Your task to perform on an android device: toggle priority inbox in the gmail app Image 0: 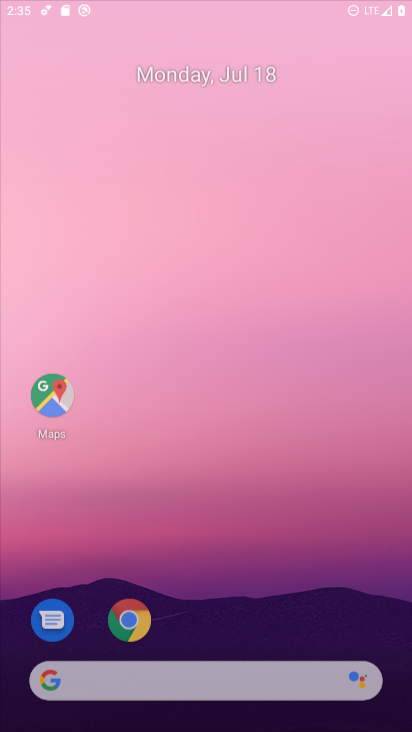
Step 0: press home button
Your task to perform on an android device: toggle priority inbox in the gmail app Image 1: 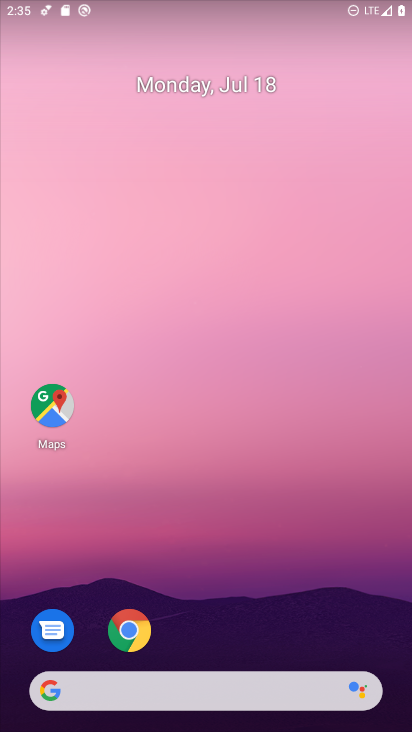
Step 1: drag from (204, 636) to (88, 3)
Your task to perform on an android device: toggle priority inbox in the gmail app Image 2: 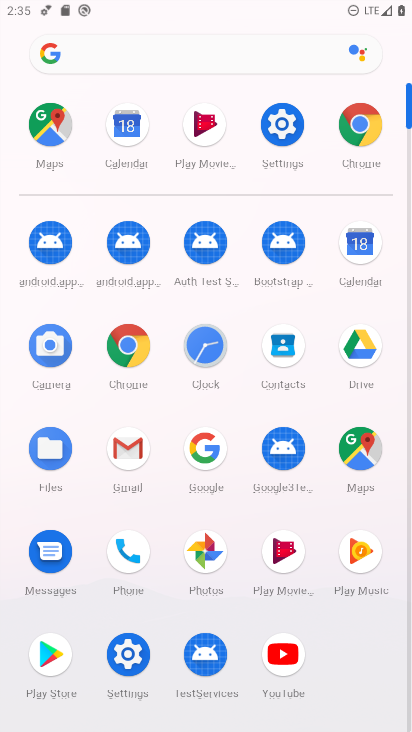
Step 2: click (129, 449)
Your task to perform on an android device: toggle priority inbox in the gmail app Image 3: 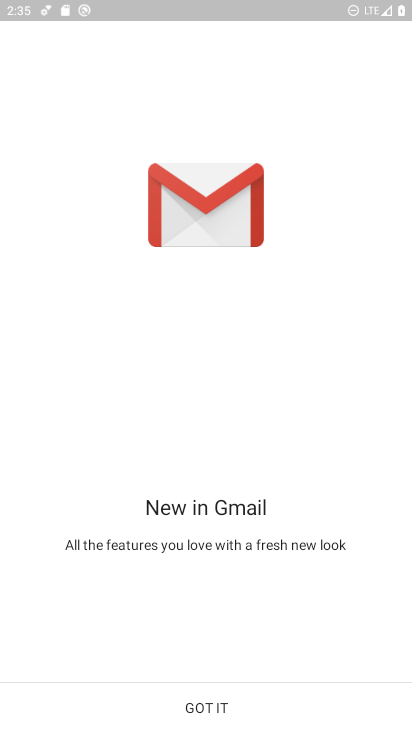
Step 3: click (222, 701)
Your task to perform on an android device: toggle priority inbox in the gmail app Image 4: 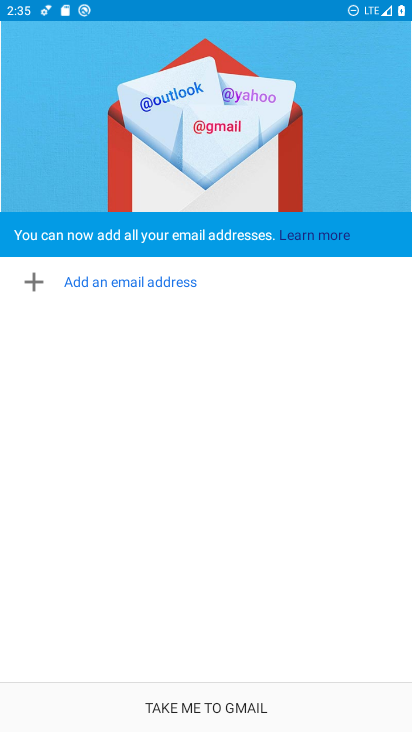
Step 4: click (229, 697)
Your task to perform on an android device: toggle priority inbox in the gmail app Image 5: 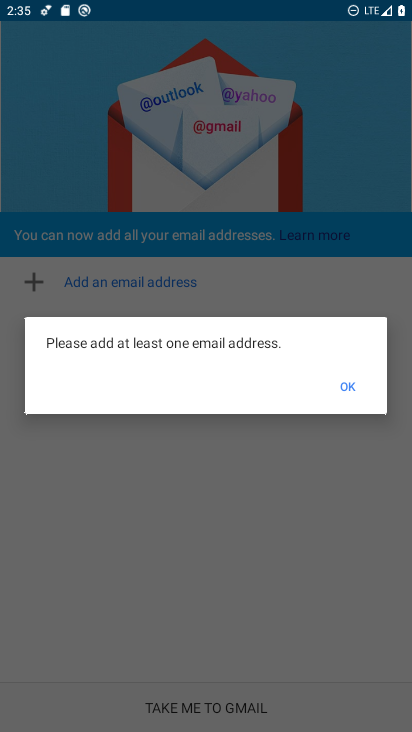
Step 5: click (364, 390)
Your task to perform on an android device: toggle priority inbox in the gmail app Image 6: 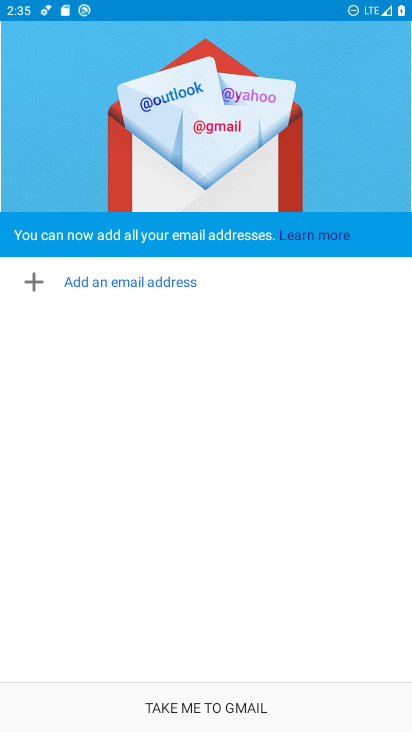
Step 6: click (191, 709)
Your task to perform on an android device: toggle priority inbox in the gmail app Image 7: 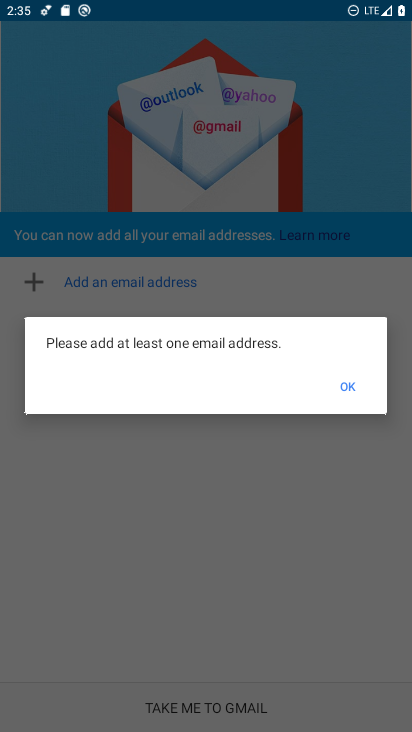
Step 7: click (352, 388)
Your task to perform on an android device: toggle priority inbox in the gmail app Image 8: 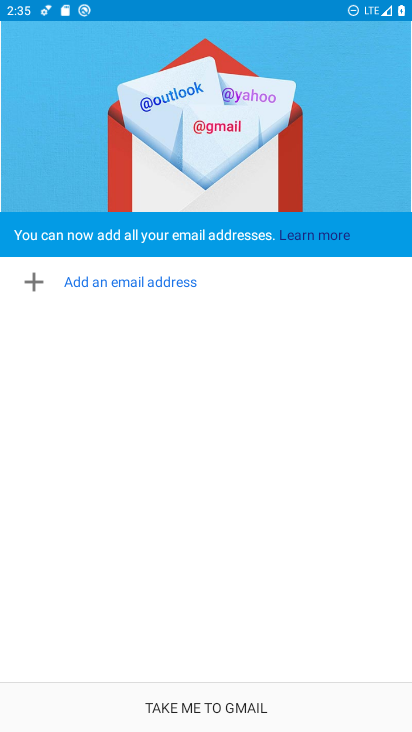
Step 8: click (166, 694)
Your task to perform on an android device: toggle priority inbox in the gmail app Image 9: 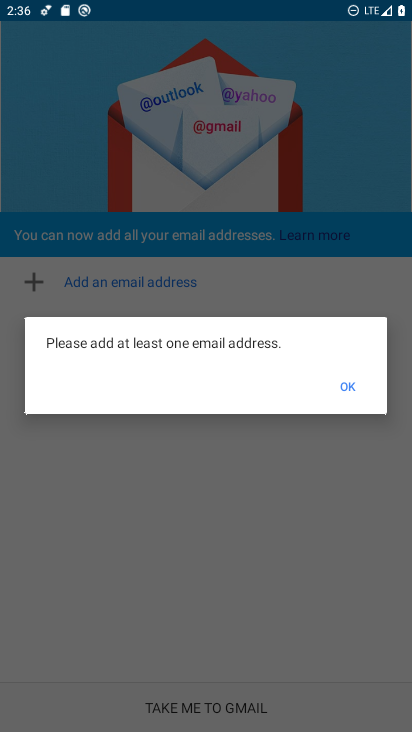
Step 9: click (345, 387)
Your task to perform on an android device: toggle priority inbox in the gmail app Image 10: 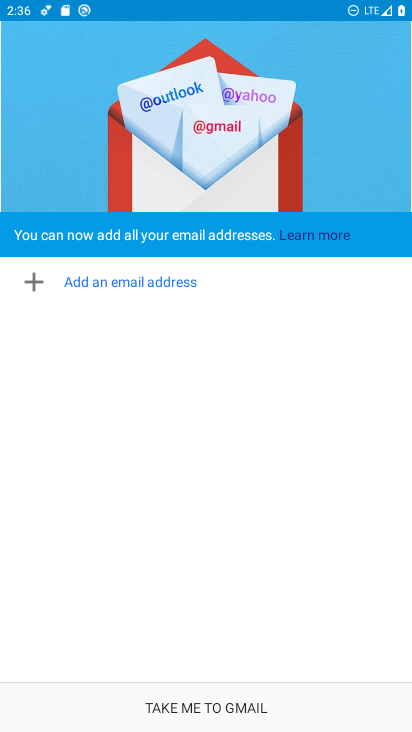
Step 10: click (57, 284)
Your task to perform on an android device: toggle priority inbox in the gmail app Image 11: 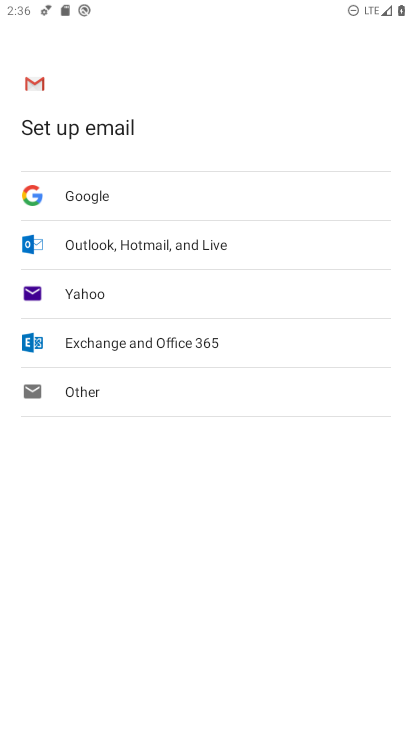
Step 11: drag from (34, 198) to (5, 161)
Your task to perform on an android device: toggle priority inbox in the gmail app Image 12: 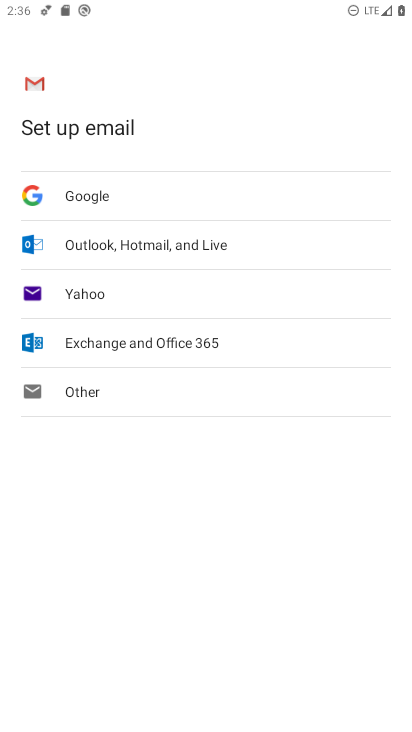
Step 12: click (97, 208)
Your task to perform on an android device: toggle priority inbox in the gmail app Image 13: 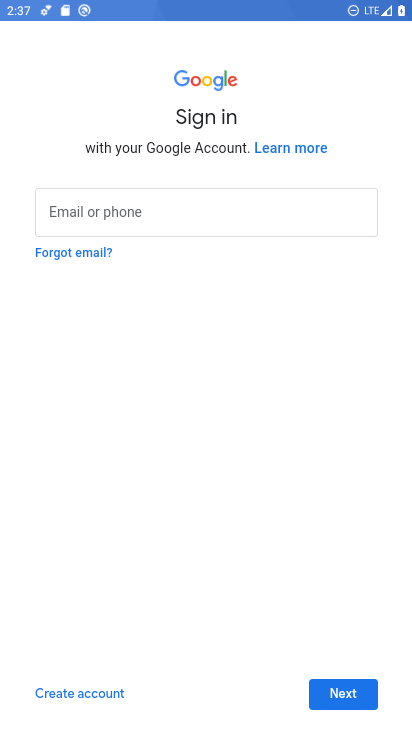
Step 13: task complete